Your task to perform on an android device: Open Chrome and go to settings Image 0: 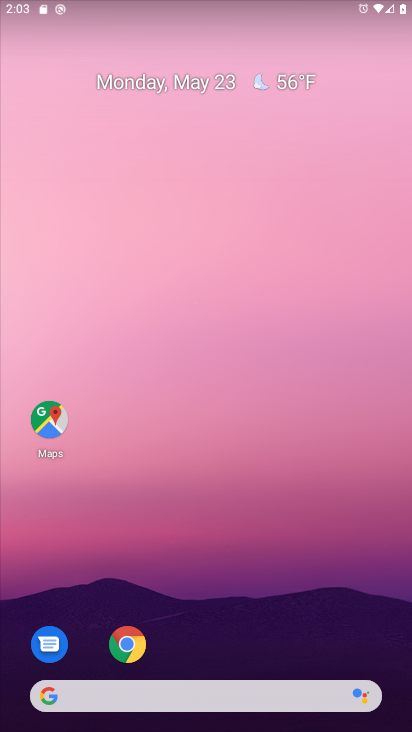
Step 0: click (118, 639)
Your task to perform on an android device: Open Chrome and go to settings Image 1: 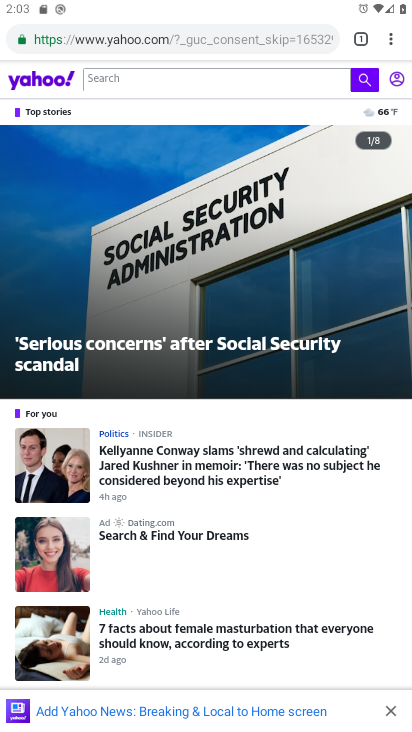
Step 1: click (387, 44)
Your task to perform on an android device: Open Chrome and go to settings Image 2: 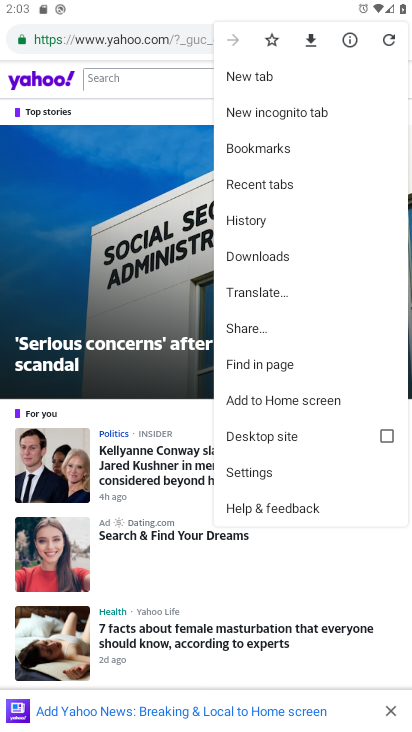
Step 2: click (256, 471)
Your task to perform on an android device: Open Chrome and go to settings Image 3: 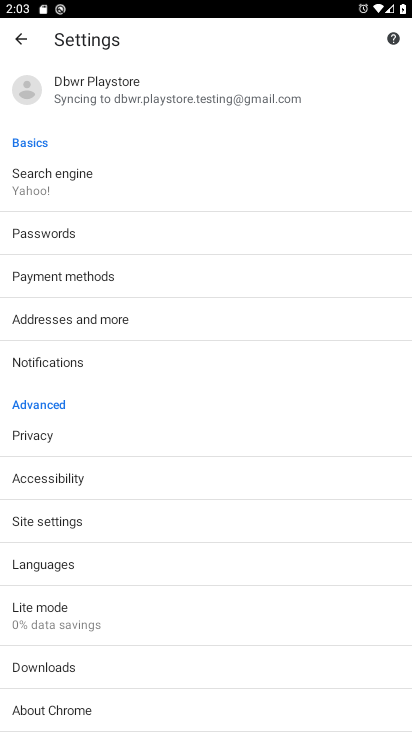
Step 3: task complete